Your task to perform on an android device: Open the phone app and click the voicemail tab. Image 0: 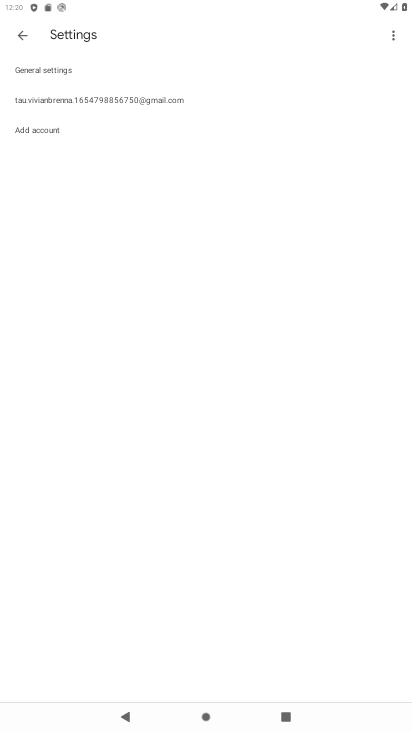
Step 0: press home button
Your task to perform on an android device: Open the phone app and click the voicemail tab. Image 1: 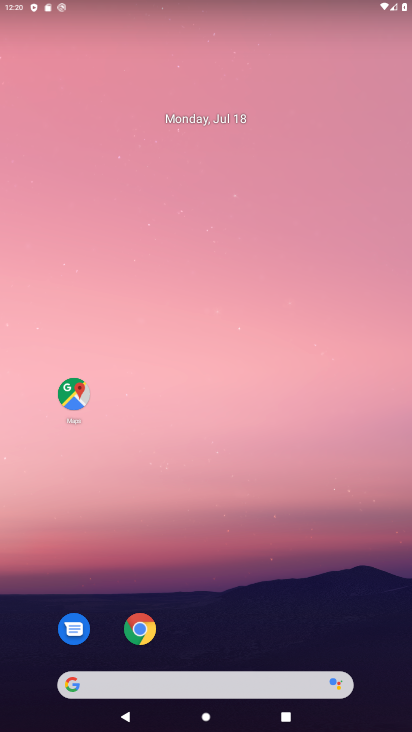
Step 1: drag from (238, 569) to (161, 113)
Your task to perform on an android device: Open the phone app and click the voicemail tab. Image 2: 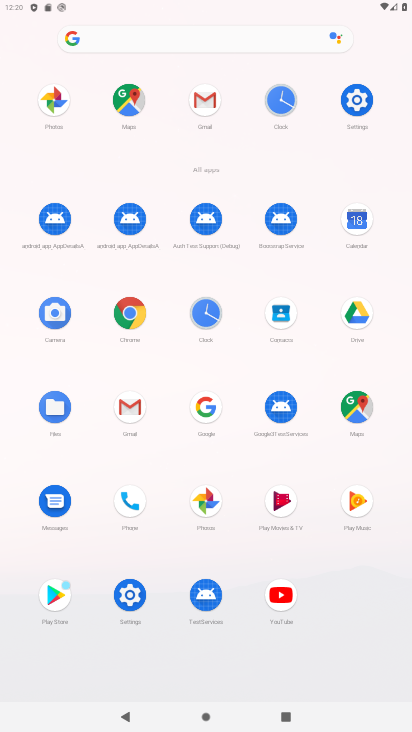
Step 2: click (130, 496)
Your task to perform on an android device: Open the phone app and click the voicemail tab. Image 3: 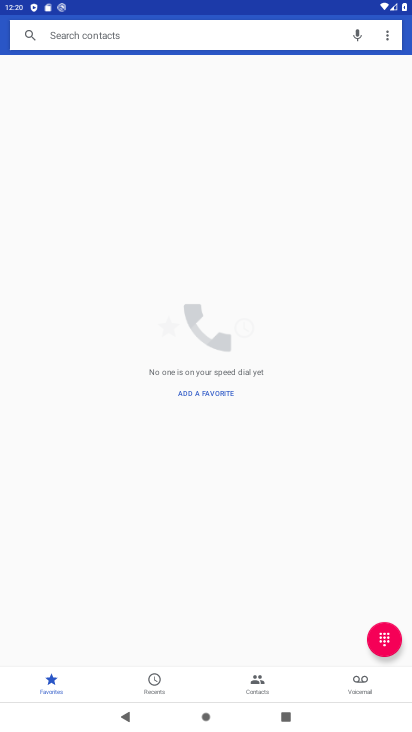
Step 3: click (364, 683)
Your task to perform on an android device: Open the phone app and click the voicemail tab. Image 4: 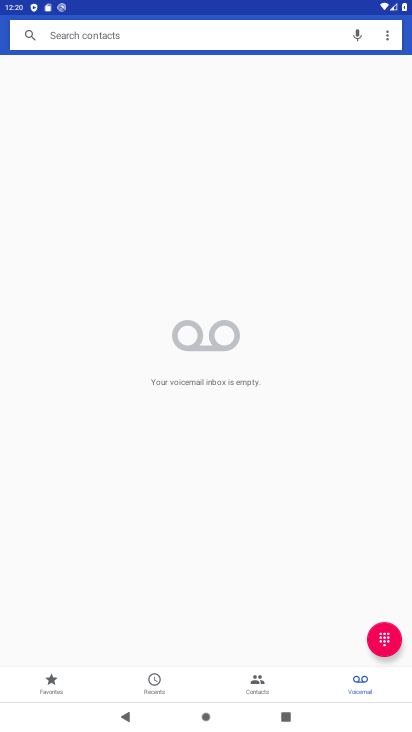
Step 4: task complete